Your task to perform on an android device: Go to internet settings Image 0: 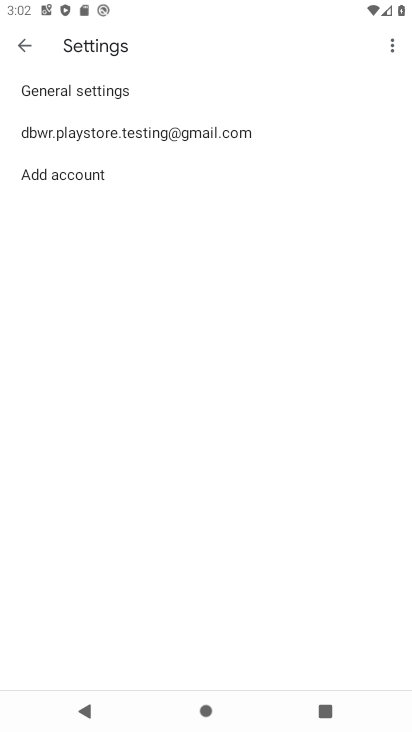
Step 0: drag from (276, 453) to (200, 6)
Your task to perform on an android device: Go to internet settings Image 1: 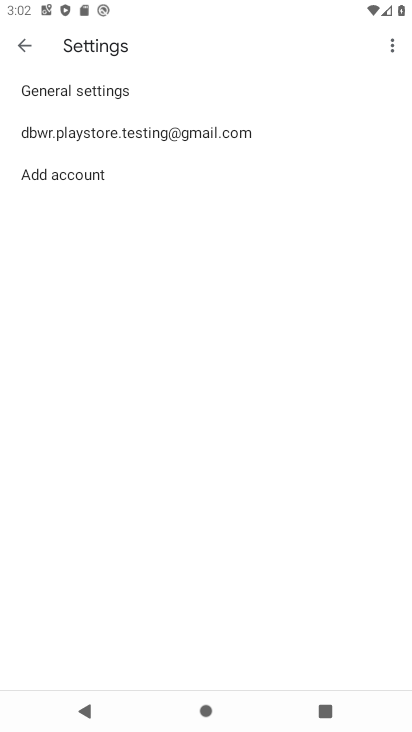
Step 1: press back button
Your task to perform on an android device: Go to internet settings Image 2: 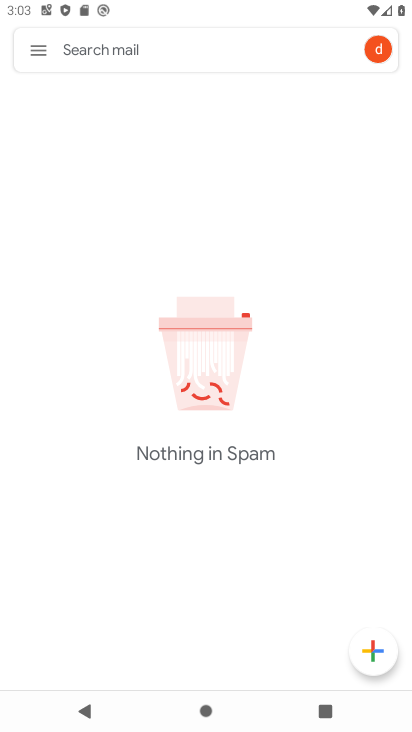
Step 2: press home button
Your task to perform on an android device: Go to internet settings Image 3: 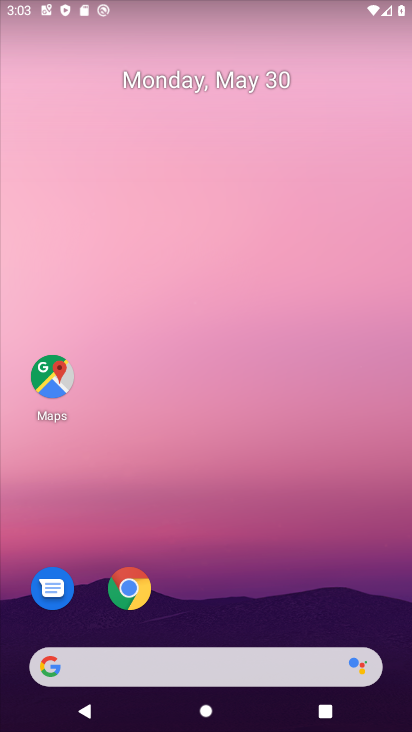
Step 3: drag from (230, 538) to (200, 10)
Your task to perform on an android device: Go to internet settings Image 4: 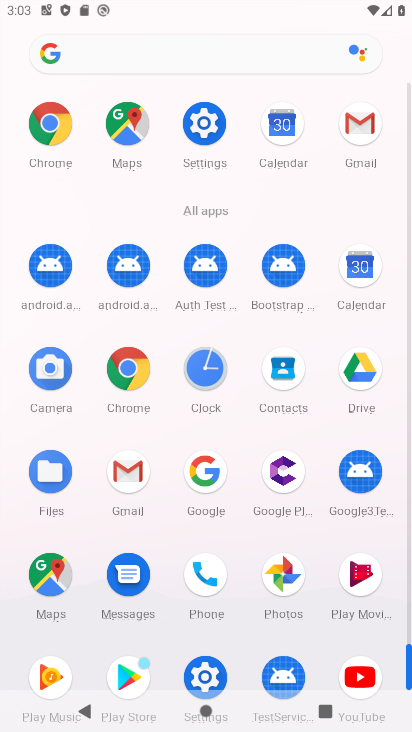
Step 4: drag from (18, 532) to (8, 212)
Your task to perform on an android device: Go to internet settings Image 5: 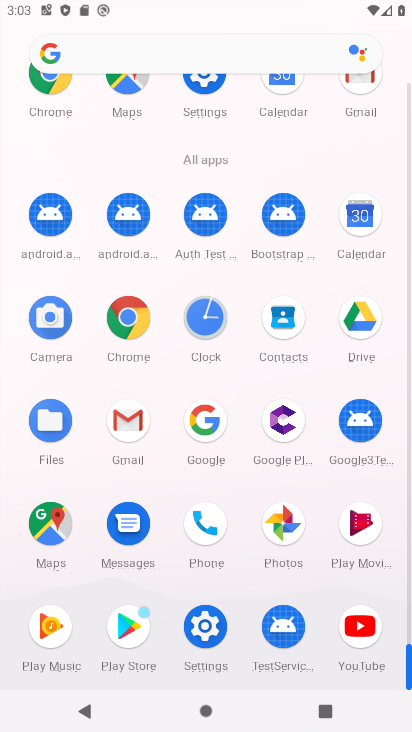
Step 5: click (46, 517)
Your task to perform on an android device: Go to internet settings Image 6: 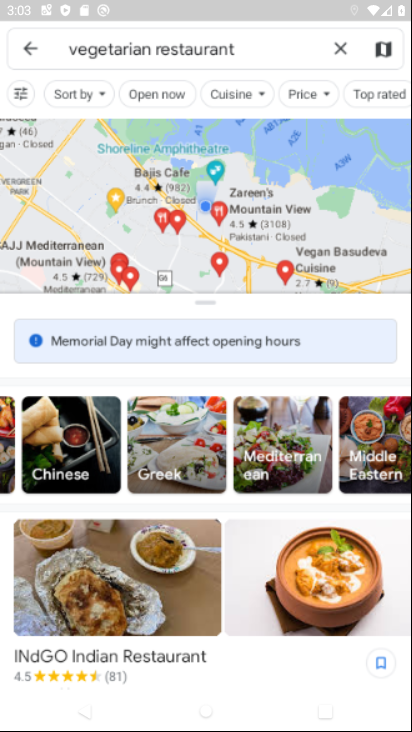
Step 6: press back button
Your task to perform on an android device: Go to internet settings Image 7: 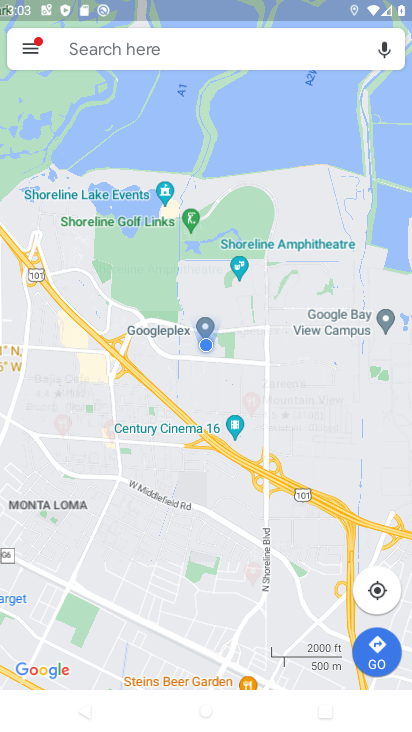
Step 7: press back button
Your task to perform on an android device: Go to internet settings Image 8: 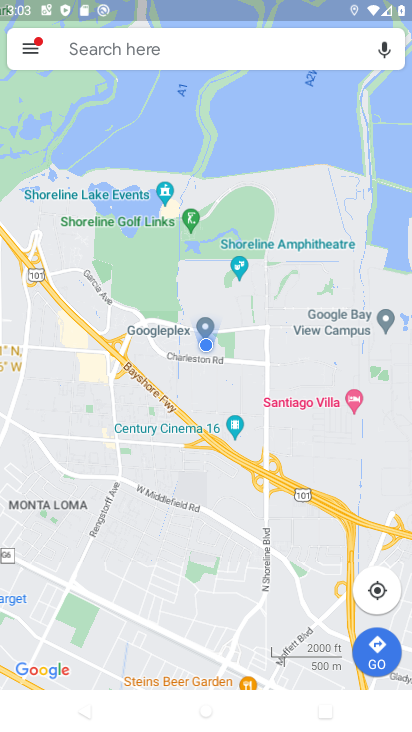
Step 8: press home button
Your task to perform on an android device: Go to internet settings Image 9: 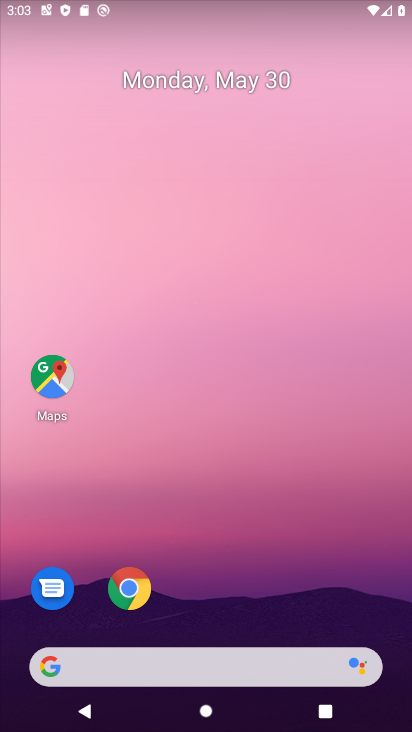
Step 9: press back button
Your task to perform on an android device: Go to internet settings Image 10: 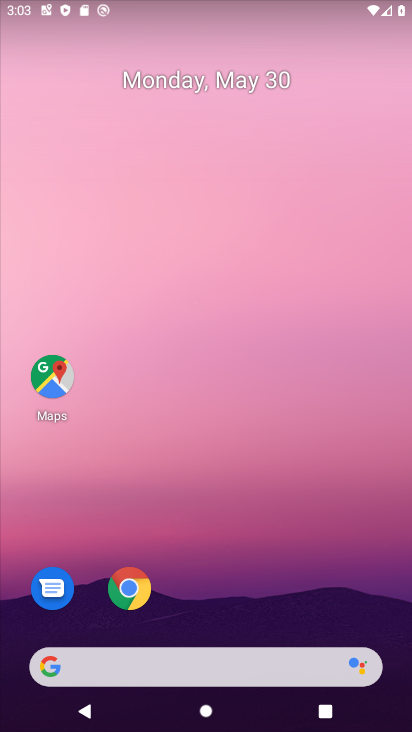
Step 10: drag from (305, 516) to (278, 10)
Your task to perform on an android device: Go to internet settings Image 11: 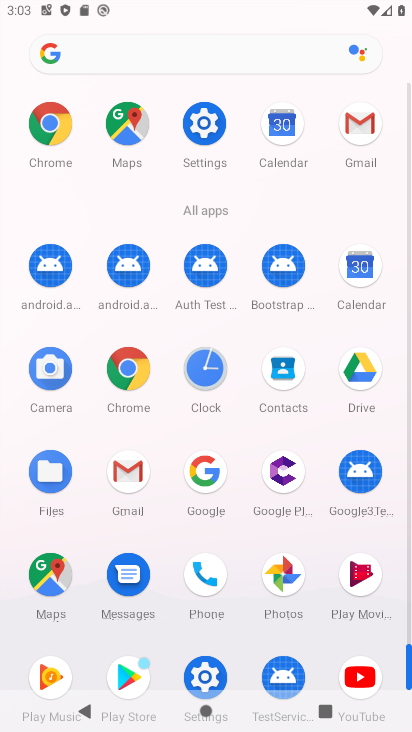
Step 11: click (202, 678)
Your task to perform on an android device: Go to internet settings Image 12: 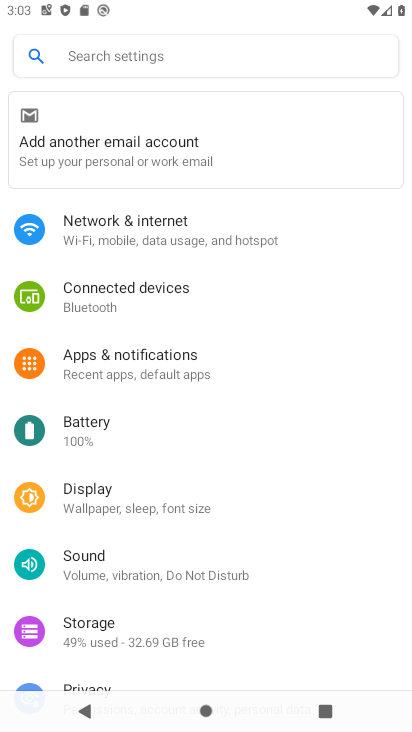
Step 12: click (173, 230)
Your task to perform on an android device: Go to internet settings Image 13: 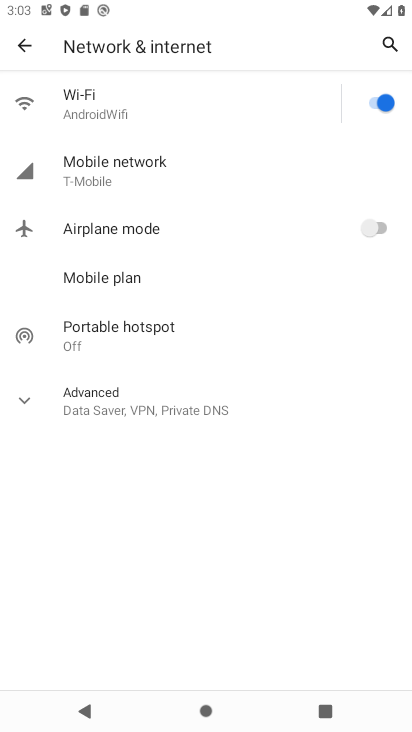
Step 13: click (52, 404)
Your task to perform on an android device: Go to internet settings Image 14: 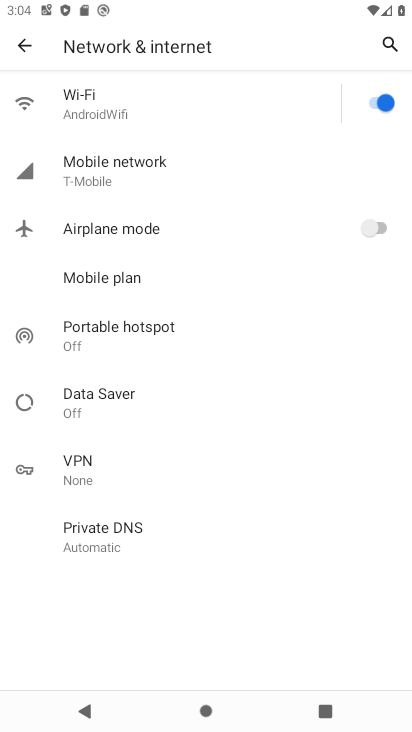
Step 14: task complete